Your task to perform on an android device: Open the calendar app, open the side menu, and click the "Day" option Image 0: 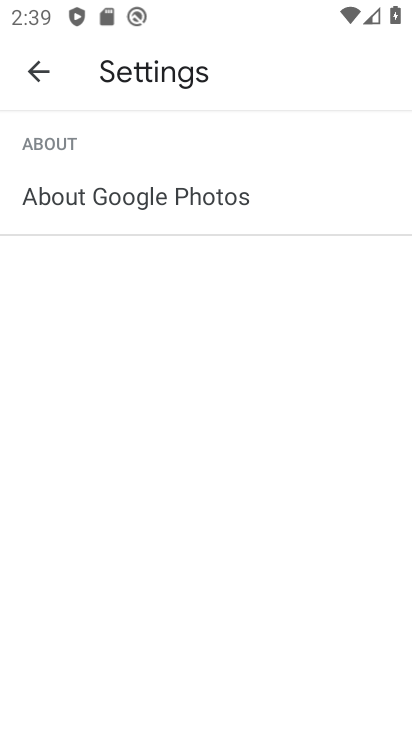
Step 0: press home button
Your task to perform on an android device: Open the calendar app, open the side menu, and click the "Day" option Image 1: 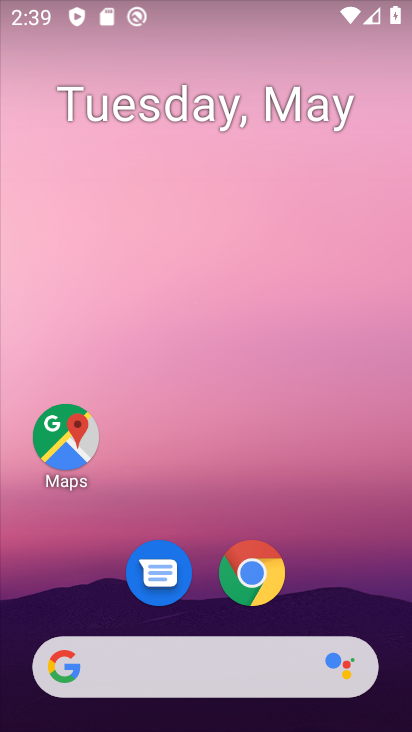
Step 1: drag from (82, 633) to (197, 80)
Your task to perform on an android device: Open the calendar app, open the side menu, and click the "Day" option Image 2: 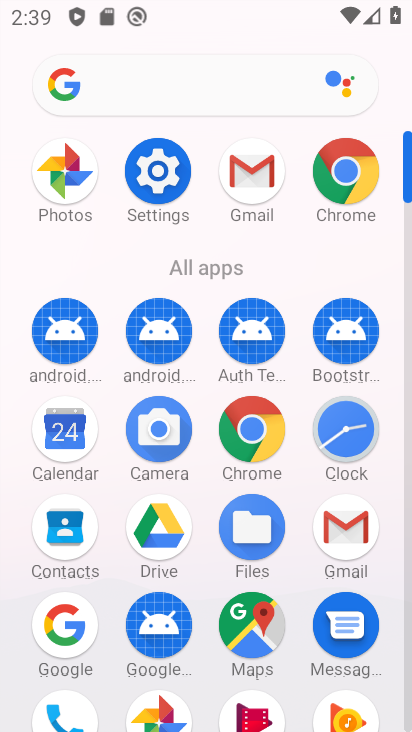
Step 2: click (71, 453)
Your task to perform on an android device: Open the calendar app, open the side menu, and click the "Day" option Image 3: 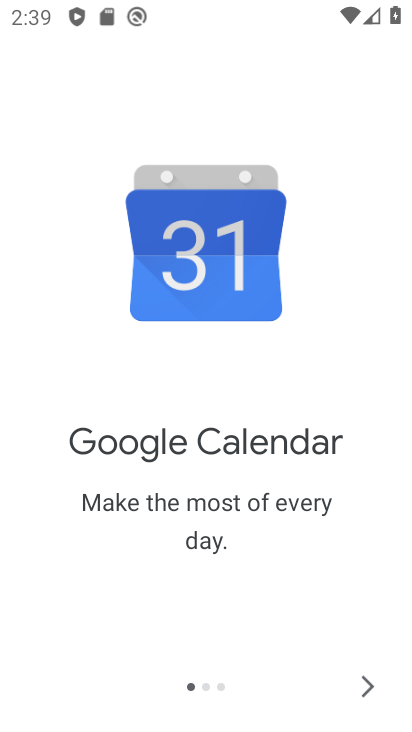
Step 3: click (364, 683)
Your task to perform on an android device: Open the calendar app, open the side menu, and click the "Day" option Image 4: 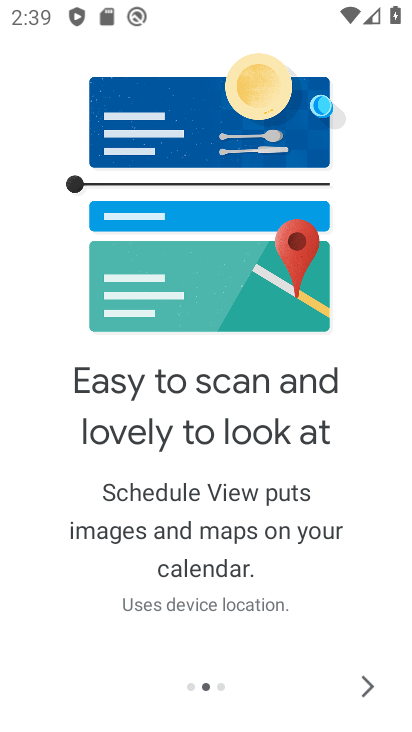
Step 4: click (379, 691)
Your task to perform on an android device: Open the calendar app, open the side menu, and click the "Day" option Image 5: 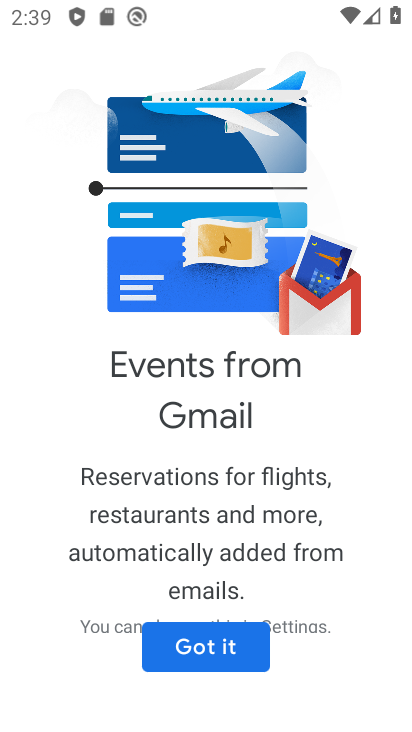
Step 5: click (237, 663)
Your task to perform on an android device: Open the calendar app, open the side menu, and click the "Day" option Image 6: 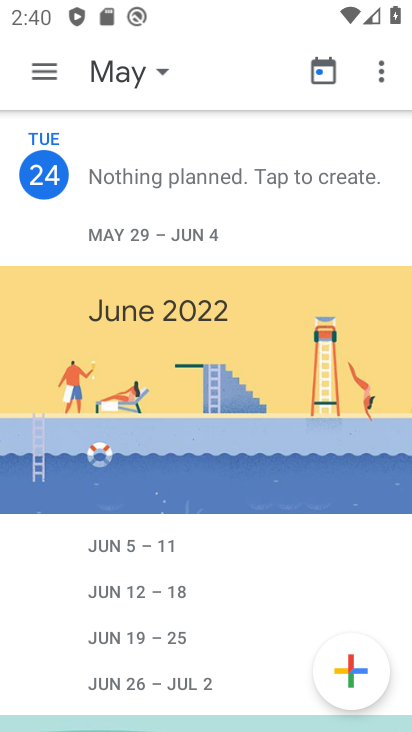
Step 6: click (32, 70)
Your task to perform on an android device: Open the calendar app, open the side menu, and click the "Day" option Image 7: 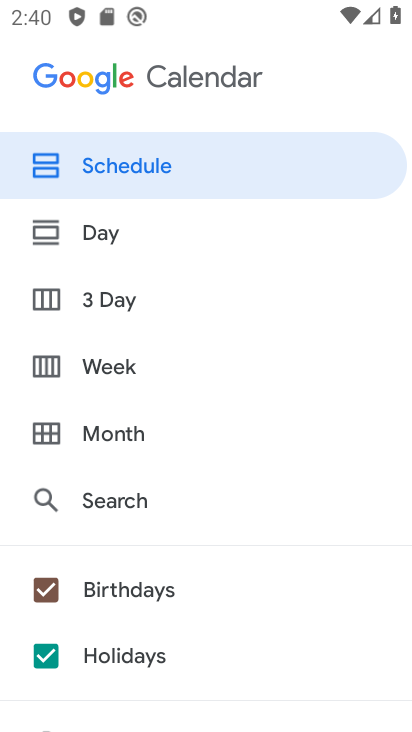
Step 7: click (177, 250)
Your task to perform on an android device: Open the calendar app, open the side menu, and click the "Day" option Image 8: 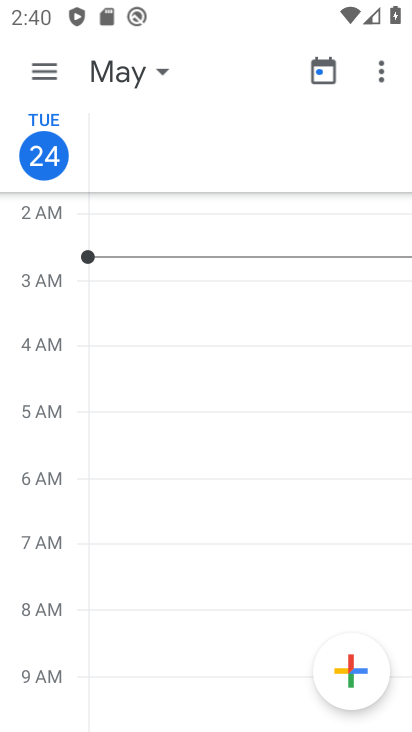
Step 8: task complete